Your task to perform on an android device: change your default location settings in chrome Image 0: 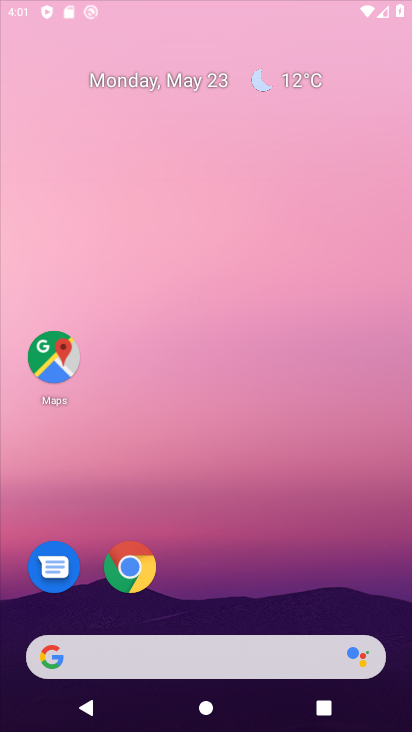
Step 0: drag from (200, 411) to (280, 98)
Your task to perform on an android device: change your default location settings in chrome Image 1: 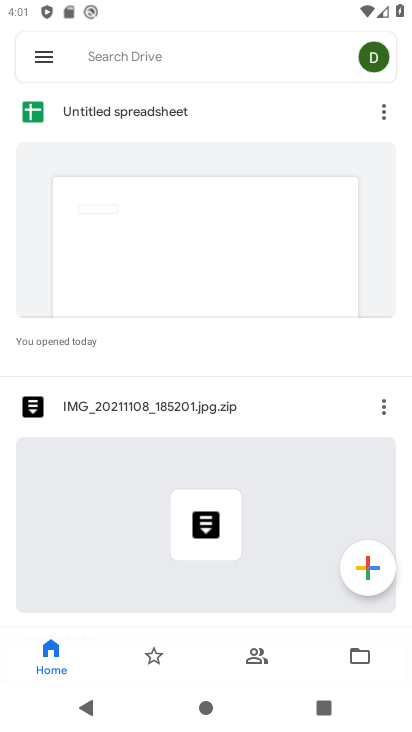
Step 1: press home button
Your task to perform on an android device: change your default location settings in chrome Image 2: 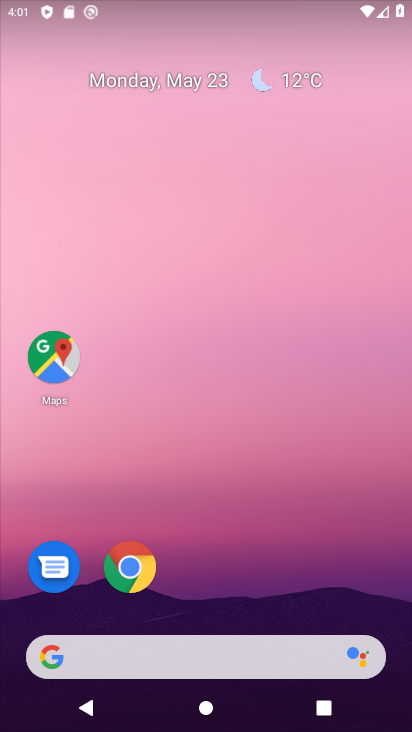
Step 2: click (134, 568)
Your task to perform on an android device: change your default location settings in chrome Image 3: 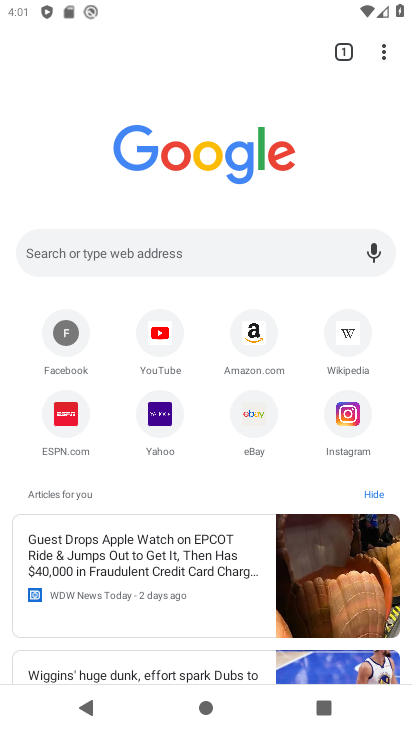
Step 3: click (382, 55)
Your task to perform on an android device: change your default location settings in chrome Image 4: 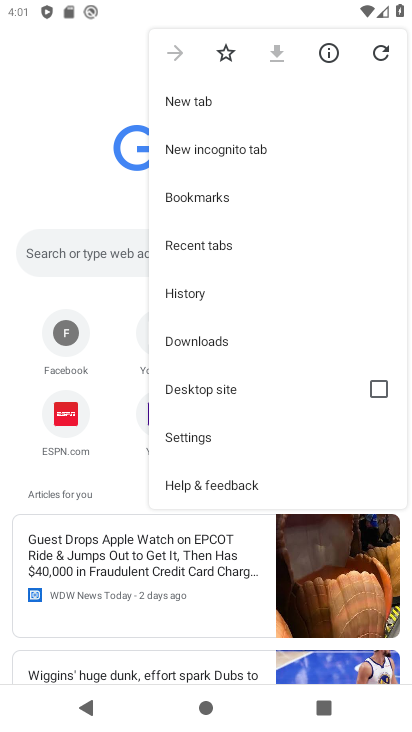
Step 4: click (201, 436)
Your task to perform on an android device: change your default location settings in chrome Image 5: 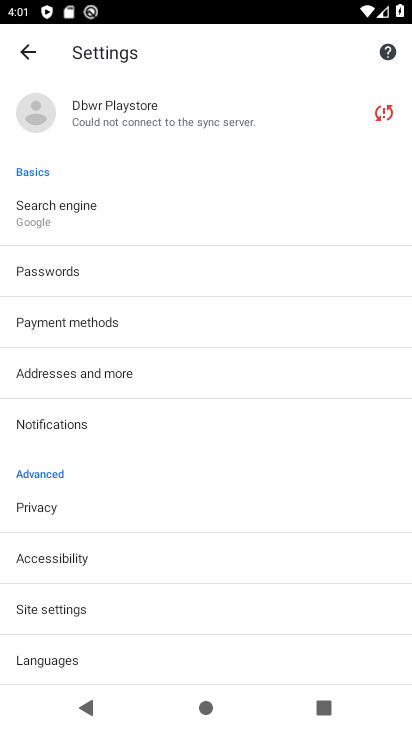
Step 5: task complete